Your task to perform on an android device: install app "Mercado Libre" Image 0: 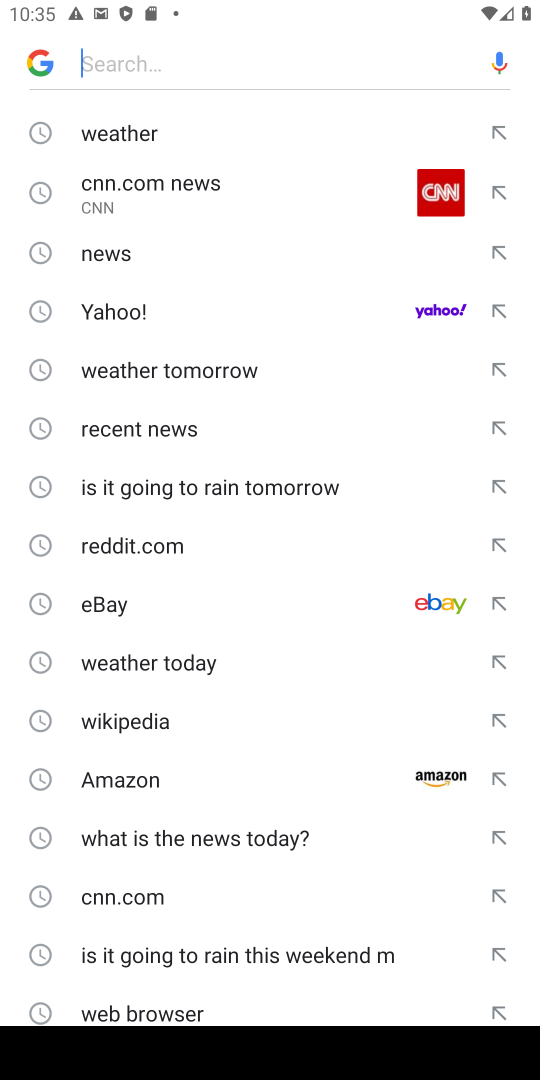
Step 0: press back button
Your task to perform on an android device: install app "Mercado Libre" Image 1: 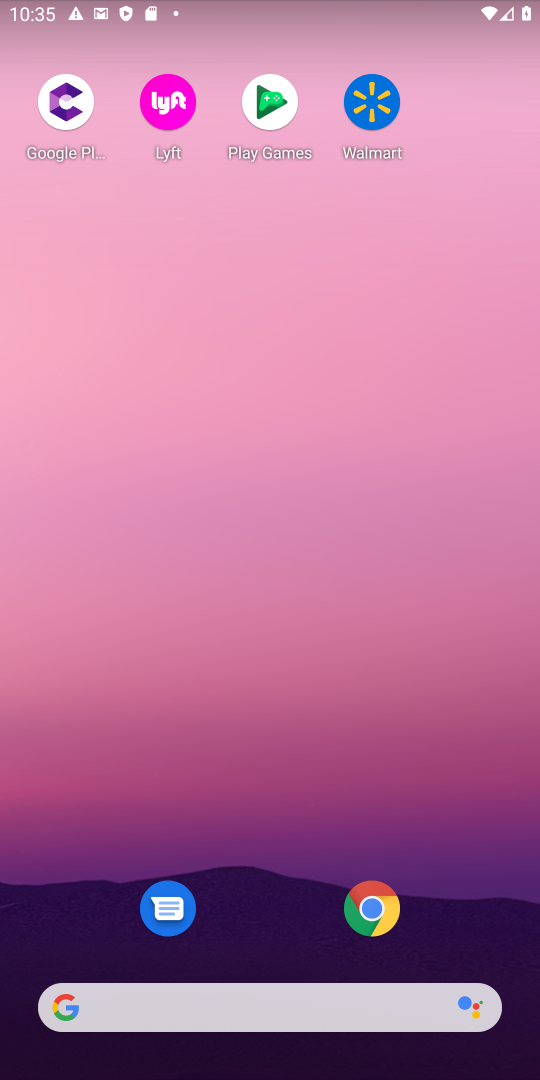
Step 1: drag from (292, 829) to (376, 68)
Your task to perform on an android device: install app "Mercado Libre" Image 2: 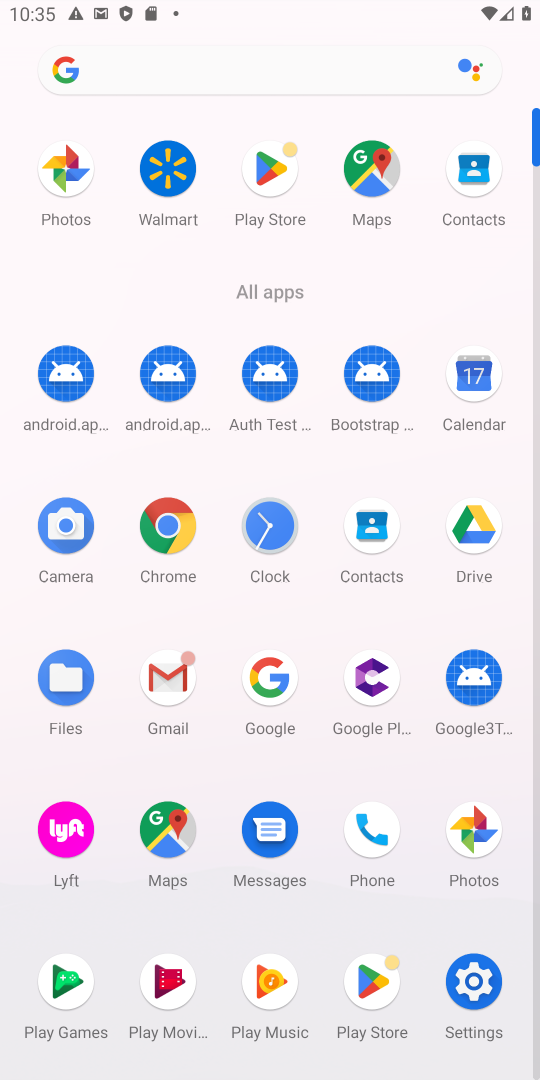
Step 2: click (276, 164)
Your task to perform on an android device: install app "Mercado Libre" Image 3: 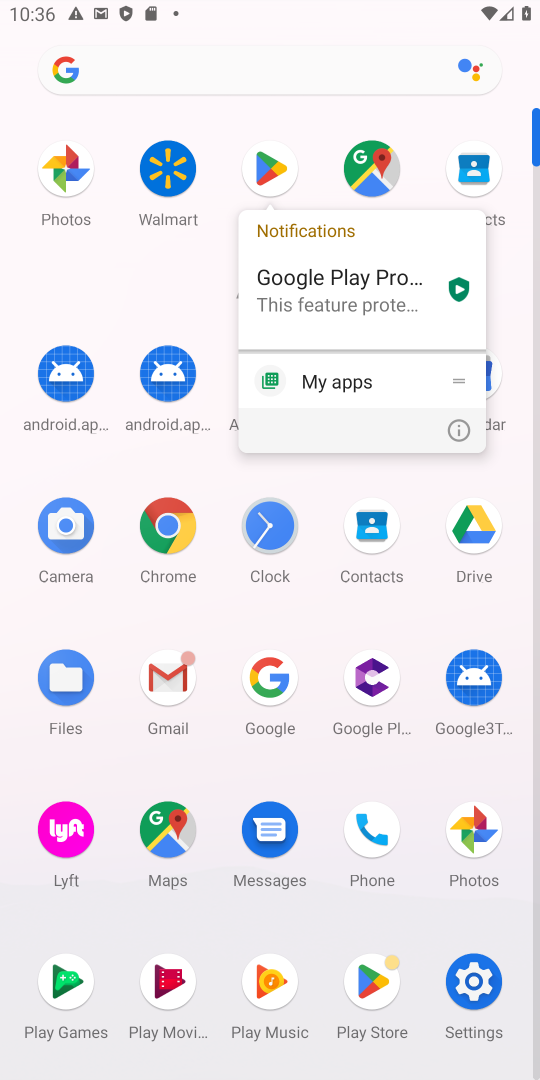
Step 3: click (272, 166)
Your task to perform on an android device: install app "Mercado Libre" Image 4: 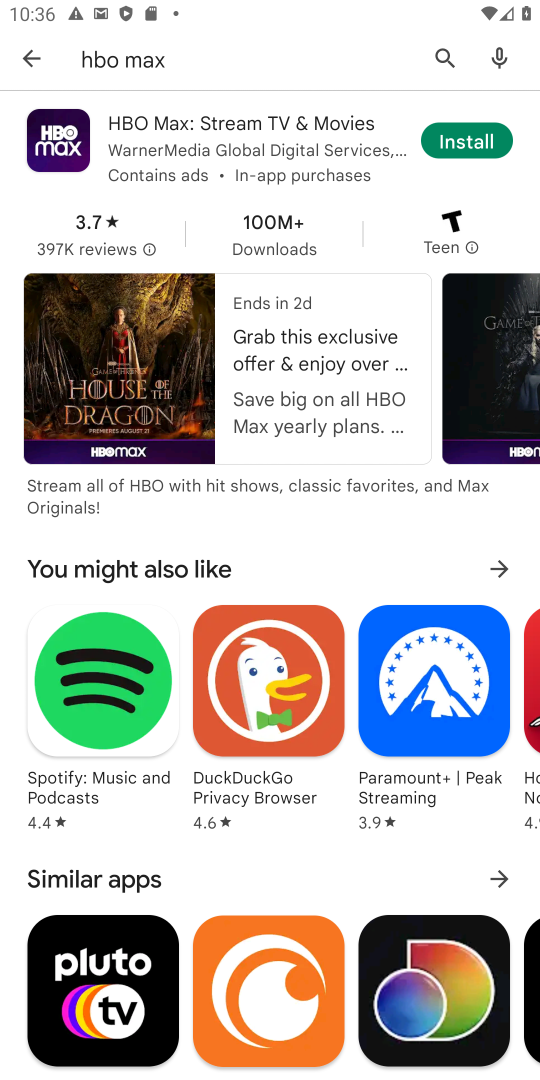
Step 4: click (435, 53)
Your task to perform on an android device: install app "Mercado Libre" Image 5: 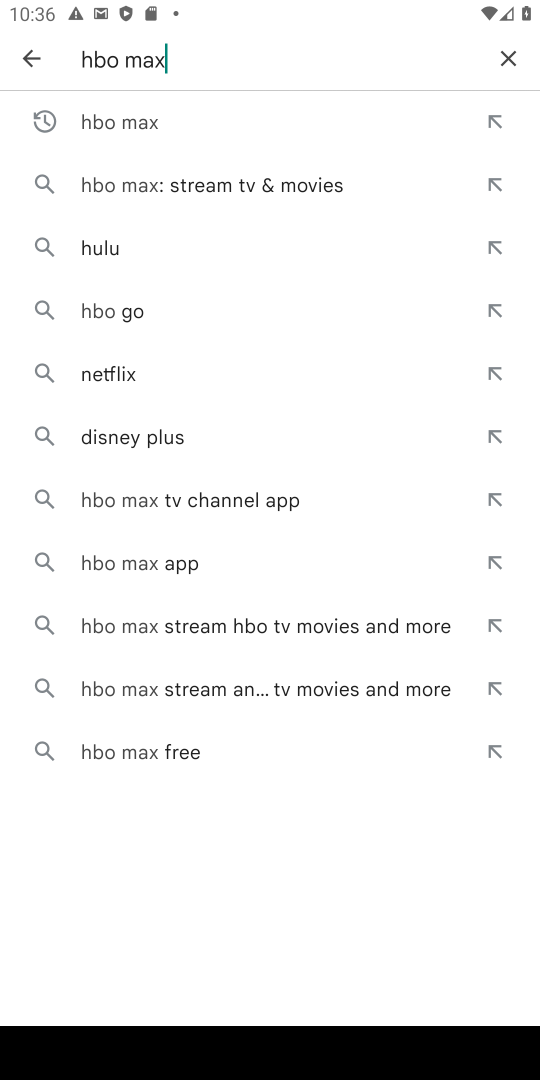
Step 5: click (516, 59)
Your task to perform on an android device: install app "Mercado Libre" Image 6: 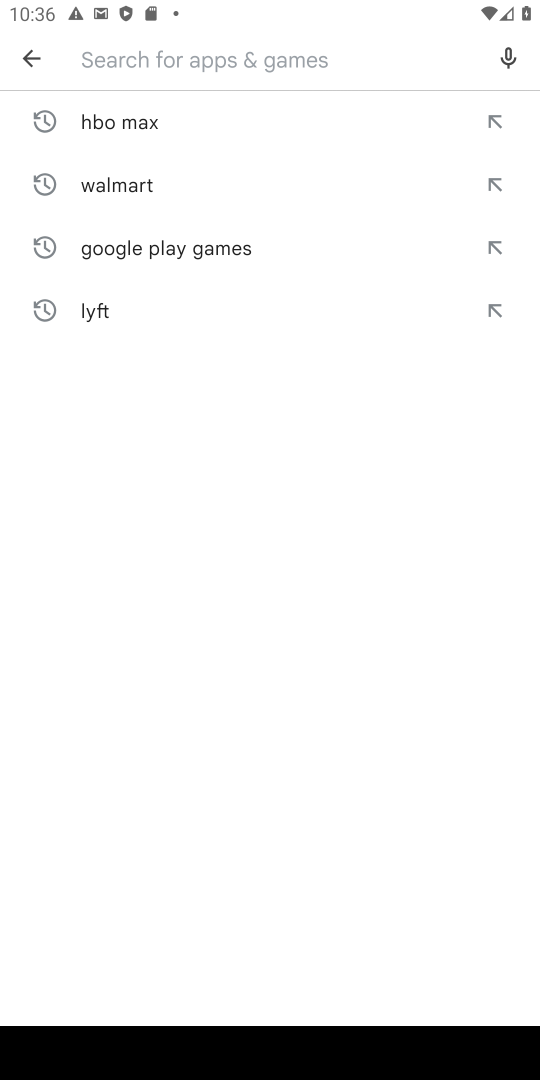
Step 6: click (174, 53)
Your task to perform on an android device: install app "Mercado Libre" Image 7: 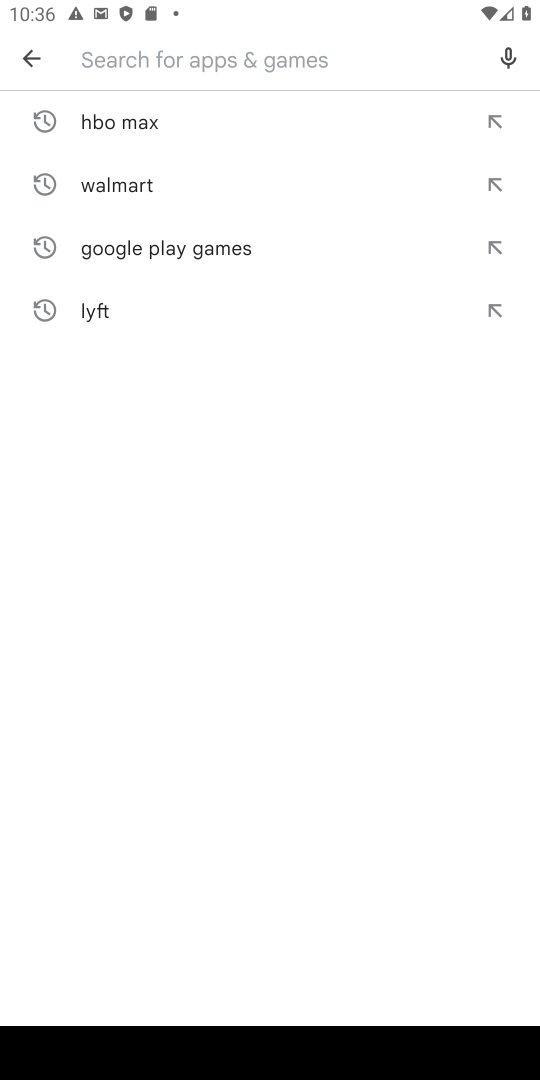
Step 7: type "mercado libre"
Your task to perform on an android device: install app "Mercado Libre" Image 8: 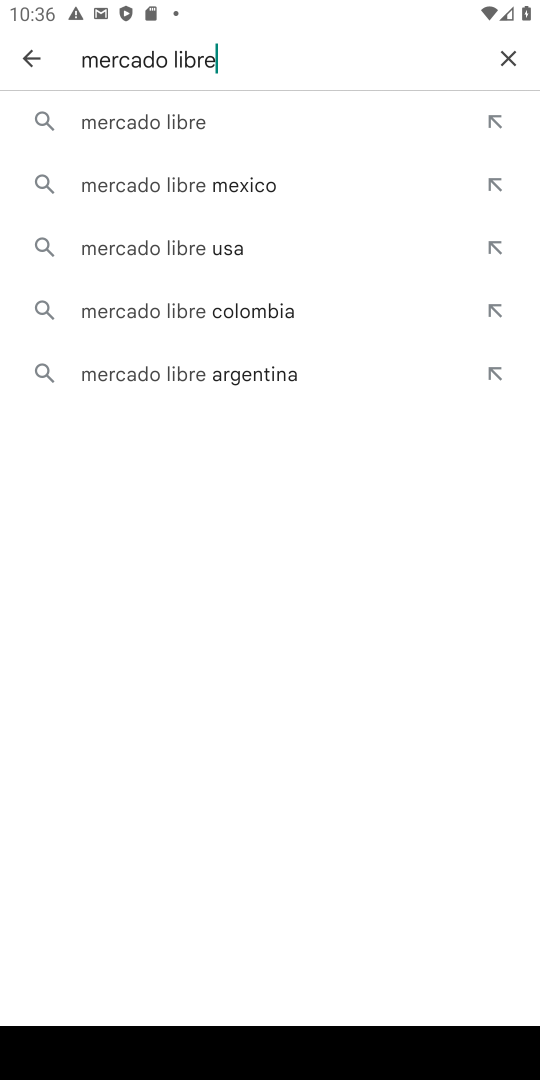
Step 8: click (152, 121)
Your task to perform on an android device: install app "Mercado Libre" Image 9: 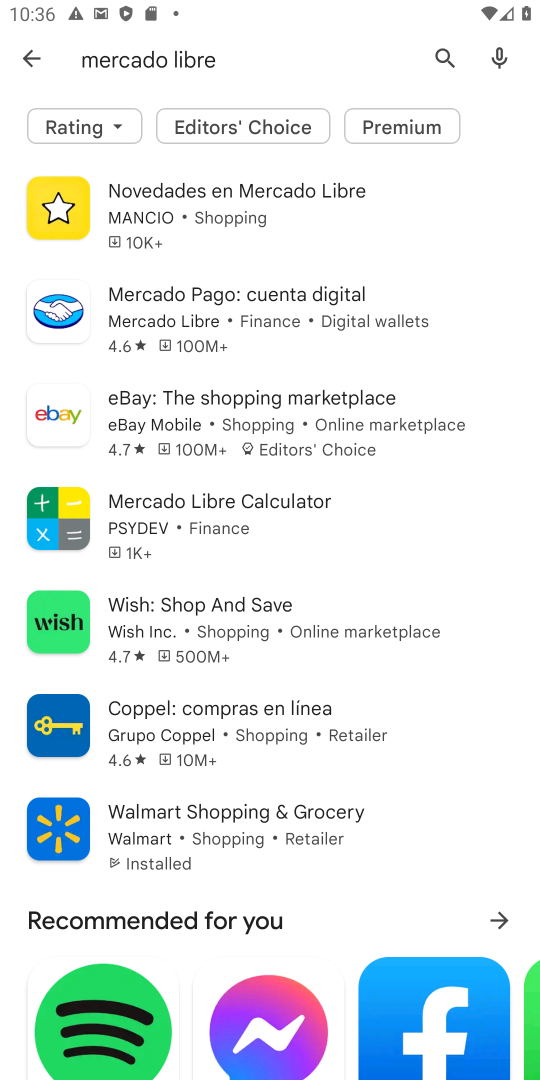
Step 9: click (216, 205)
Your task to perform on an android device: install app "Mercado Libre" Image 10: 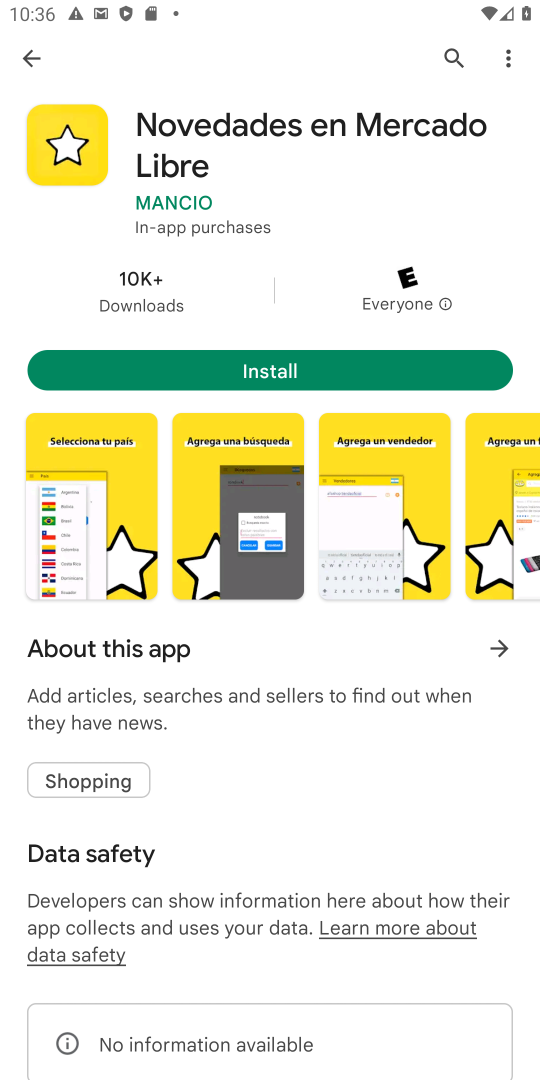
Step 10: click (205, 362)
Your task to perform on an android device: install app "Mercado Libre" Image 11: 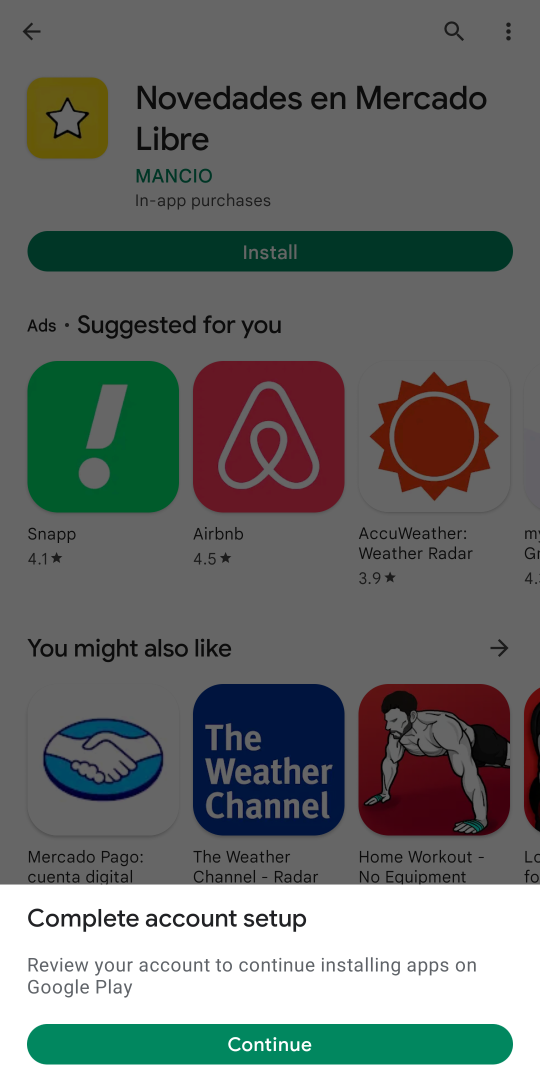
Step 11: click (239, 1037)
Your task to perform on an android device: install app "Mercado Libre" Image 12: 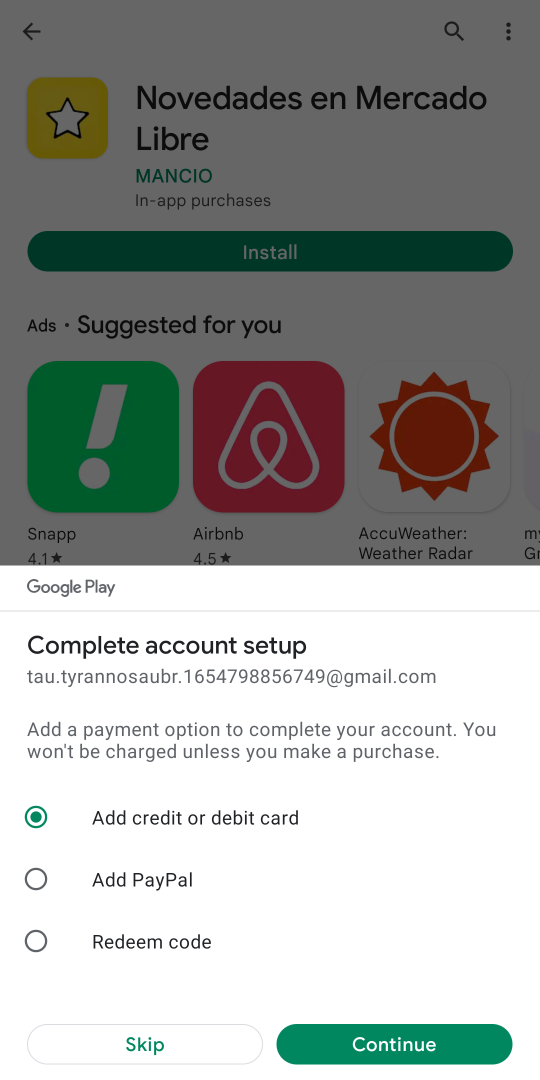
Step 12: click (151, 1043)
Your task to perform on an android device: install app "Mercado Libre" Image 13: 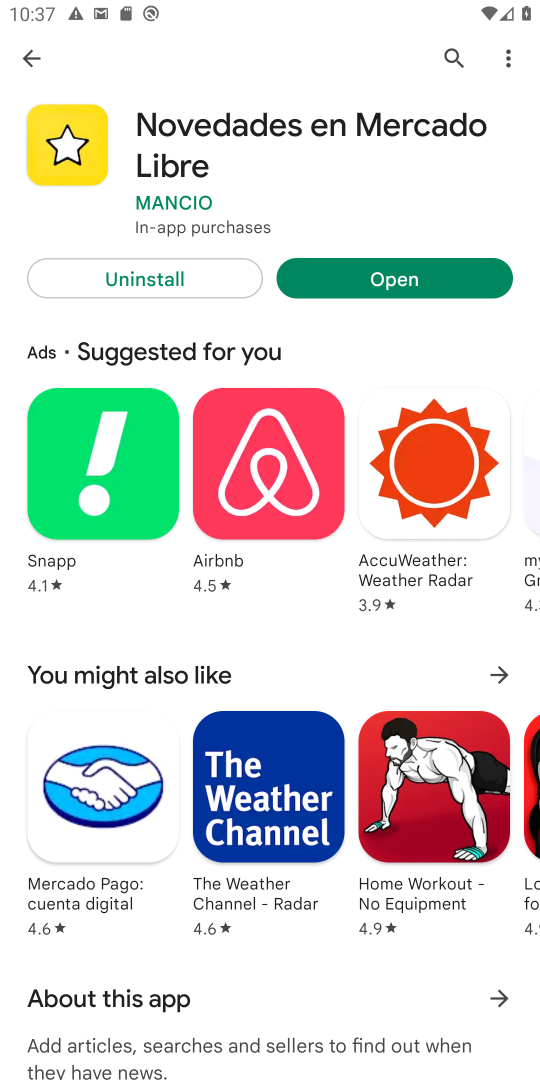
Step 13: task complete